Your task to perform on an android device: What's a good restaurant in Sacramento? Image 0: 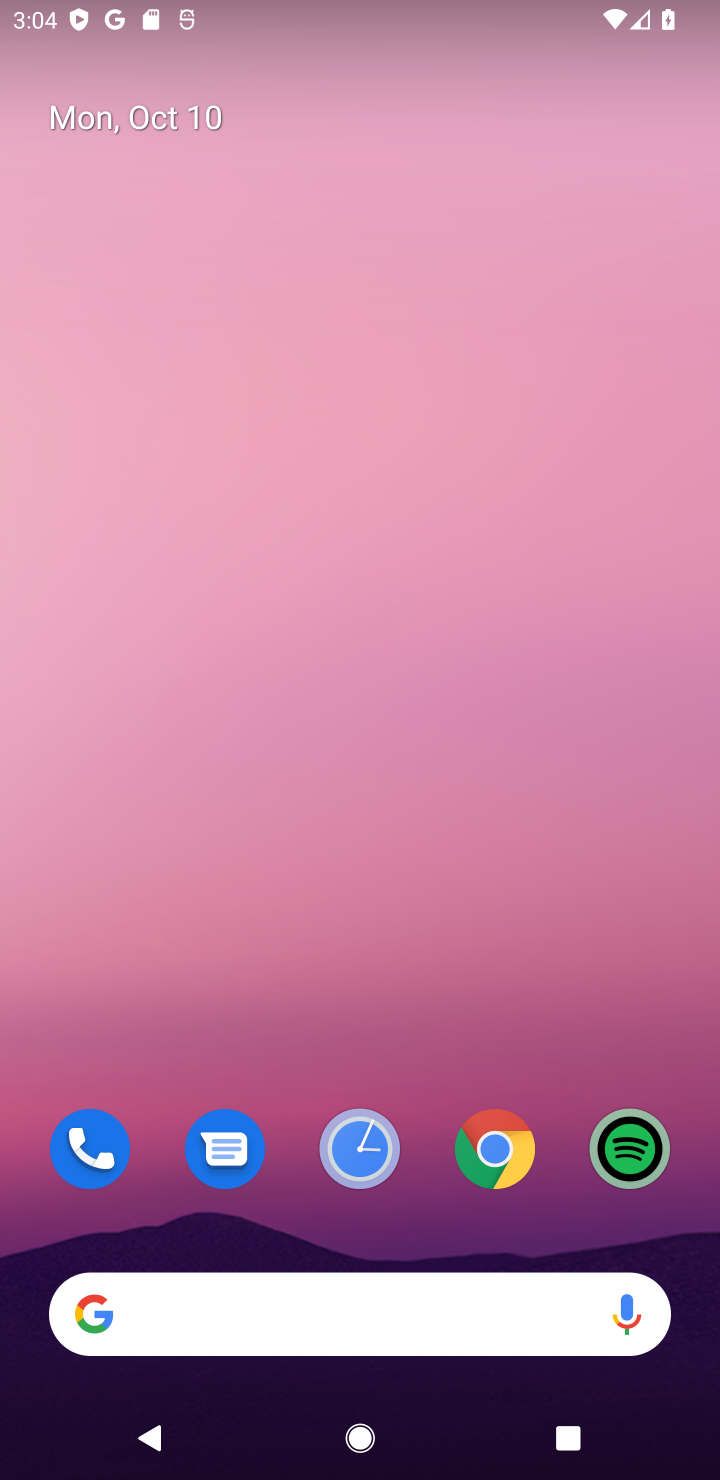
Step 0: click (340, 1320)
Your task to perform on an android device: What's a good restaurant in Sacramento? Image 1: 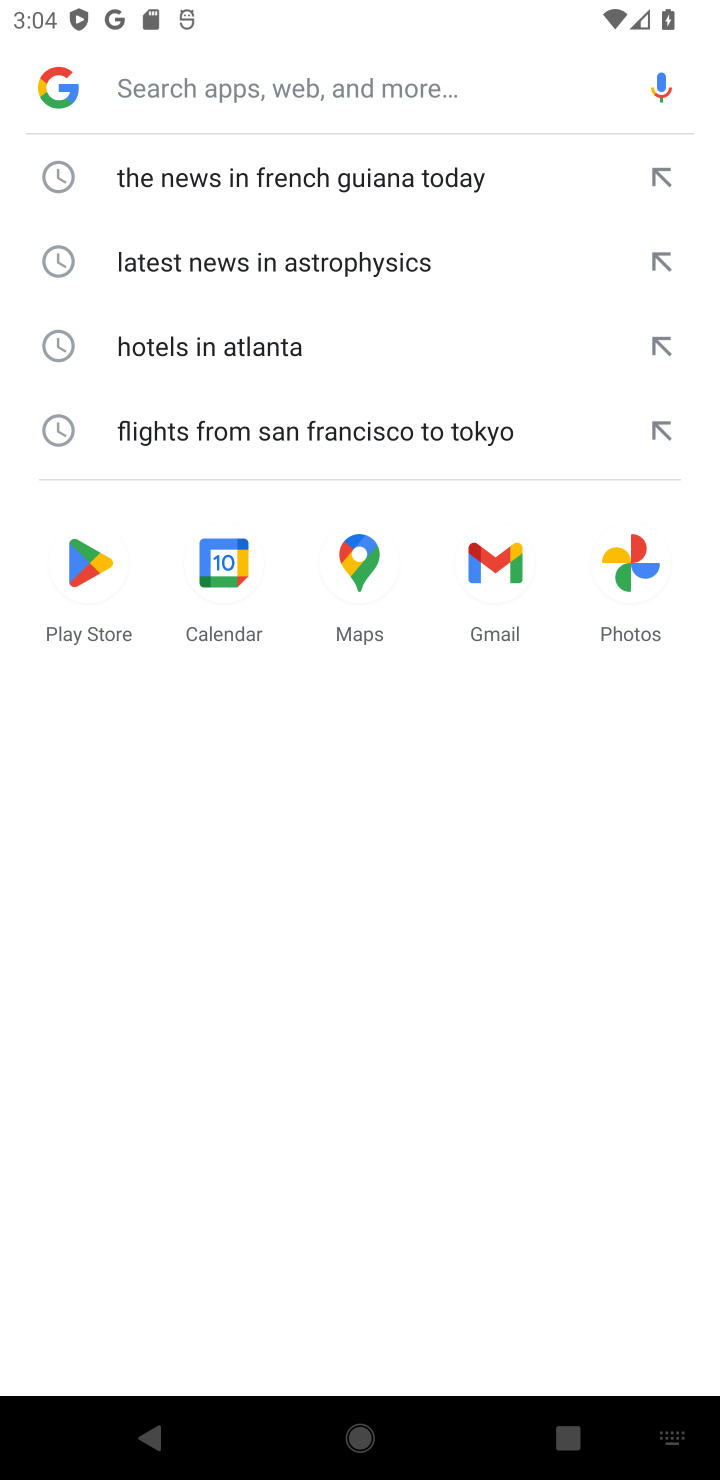
Step 1: type "good restaurant in Sacramento"
Your task to perform on an android device: What's a good restaurant in Sacramento? Image 2: 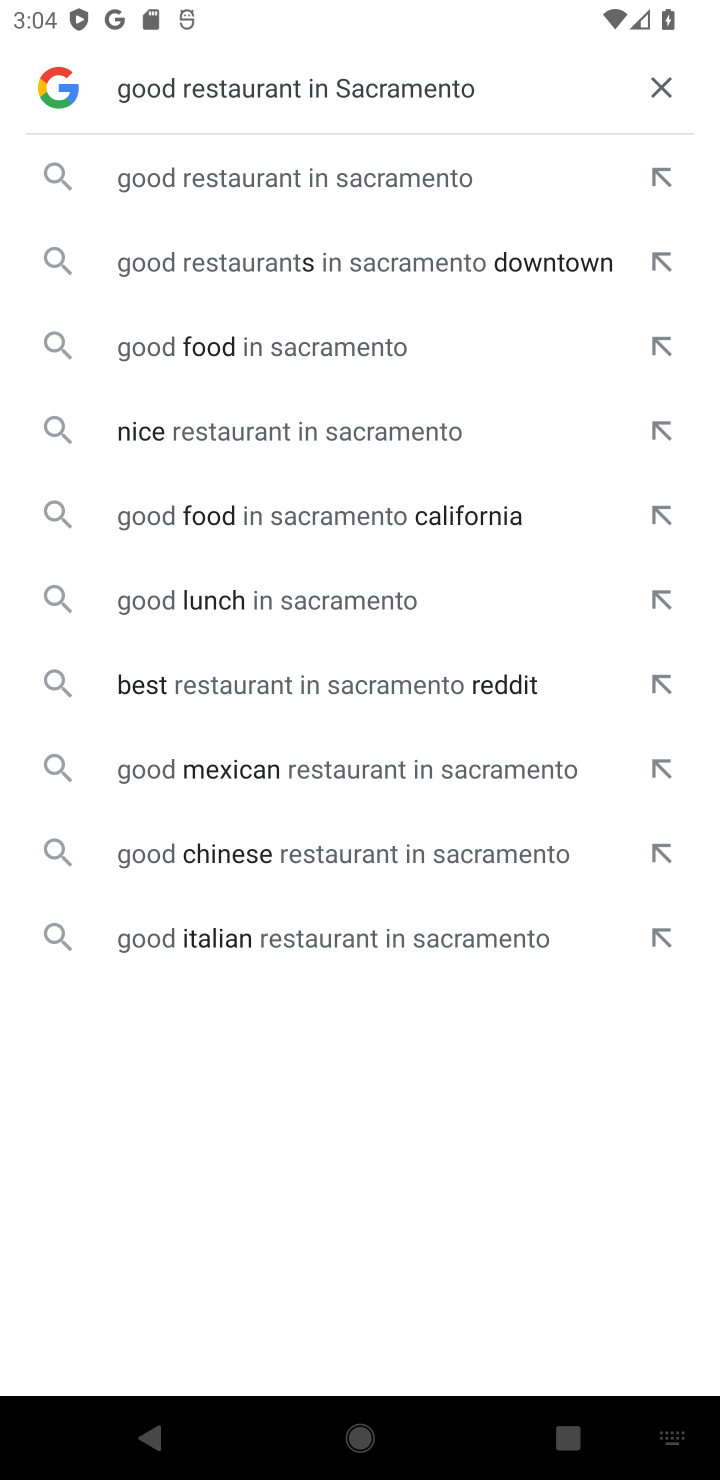
Step 2: click (316, 168)
Your task to perform on an android device: What's a good restaurant in Sacramento? Image 3: 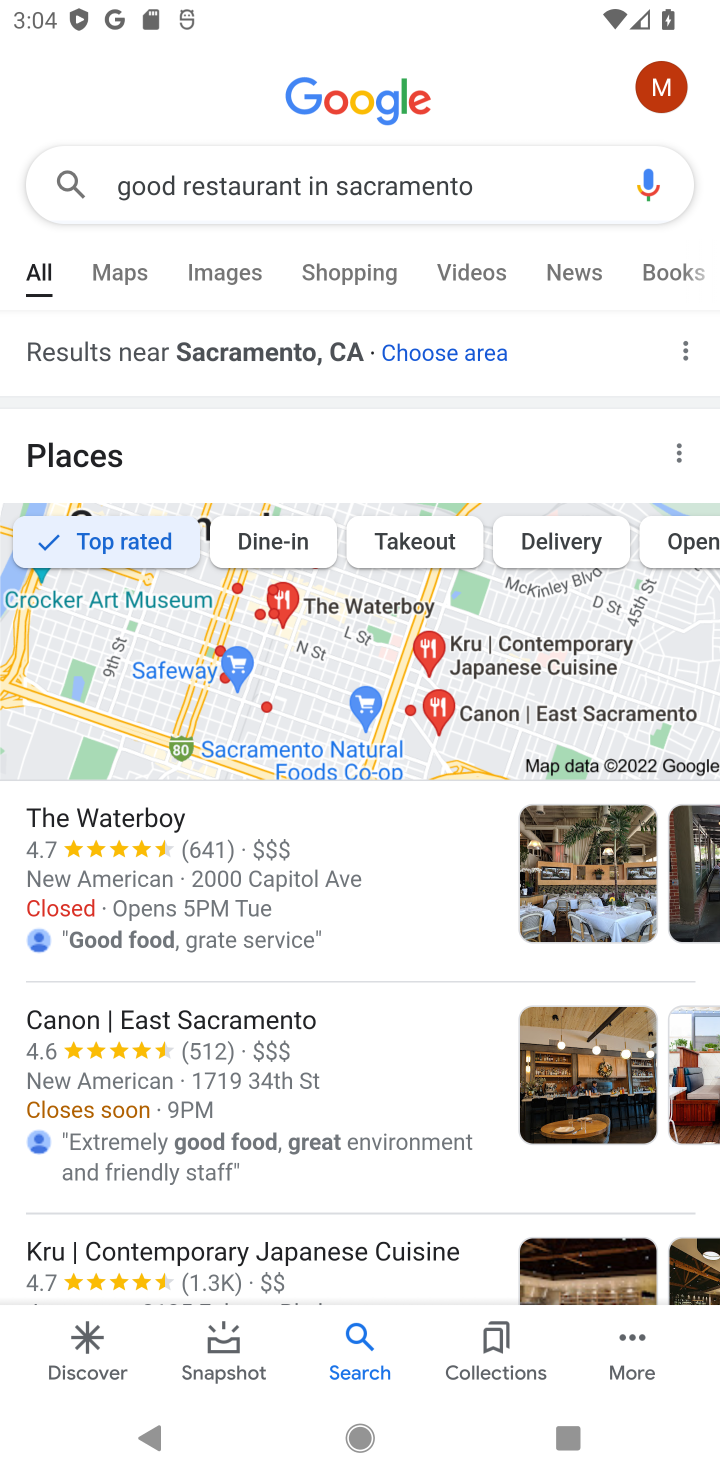
Step 3: task complete